Your task to perform on an android device: open wifi settings Image 0: 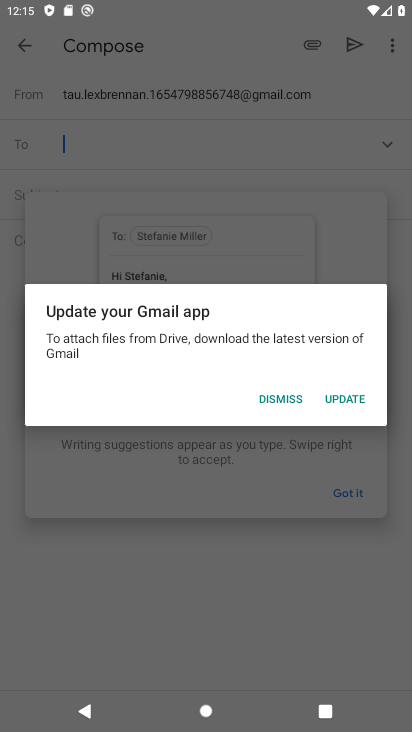
Step 0: press home button
Your task to perform on an android device: open wifi settings Image 1: 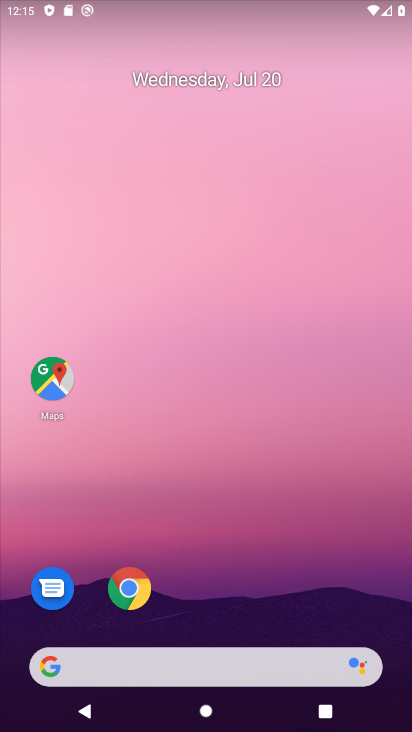
Step 1: drag from (257, 577) to (284, 5)
Your task to perform on an android device: open wifi settings Image 2: 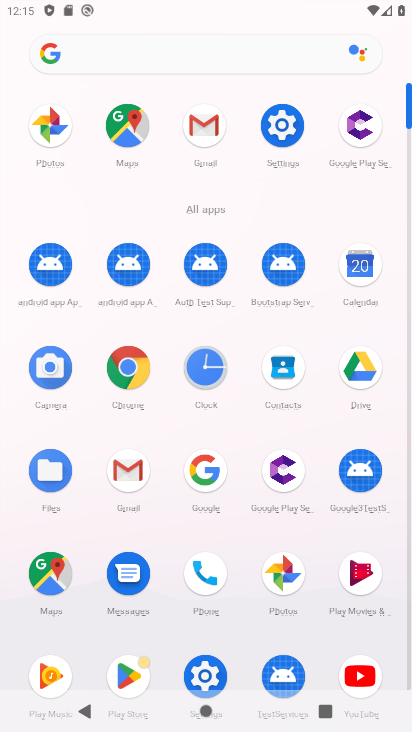
Step 2: click (274, 121)
Your task to perform on an android device: open wifi settings Image 3: 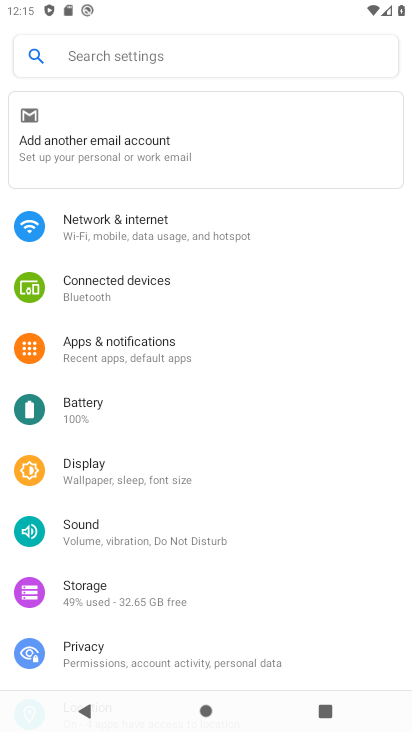
Step 3: click (99, 227)
Your task to perform on an android device: open wifi settings Image 4: 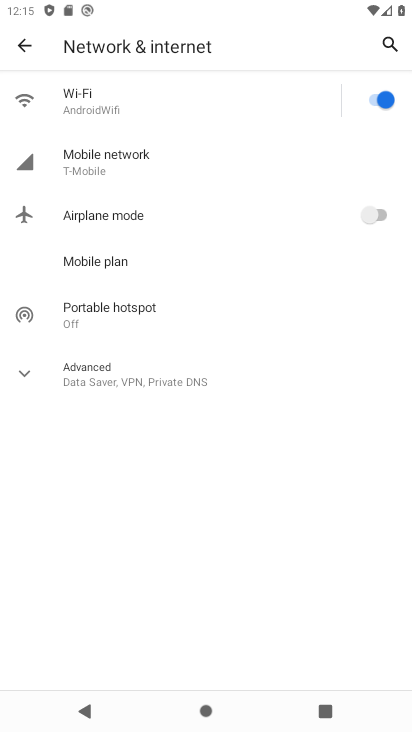
Step 4: click (143, 105)
Your task to perform on an android device: open wifi settings Image 5: 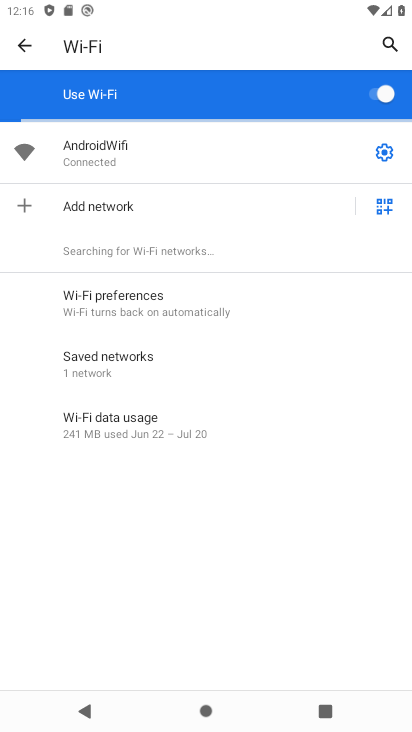
Step 5: task complete